Your task to perform on an android device: Search for vegetarian restaurants on Maps Image 0: 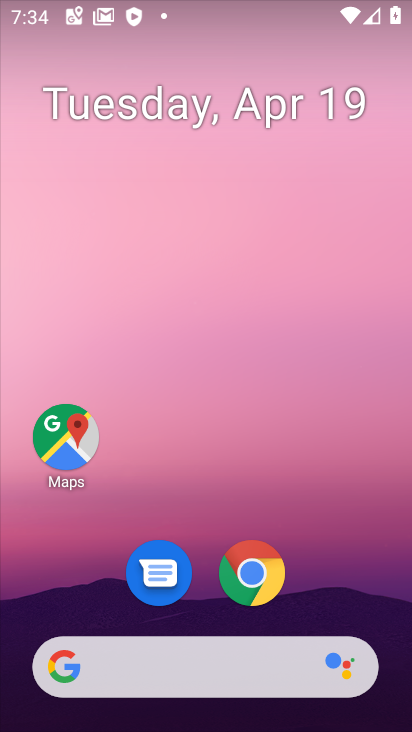
Step 0: click (78, 432)
Your task to perform on an android device: Search for vegetarian restaurants on Maps Image 1: 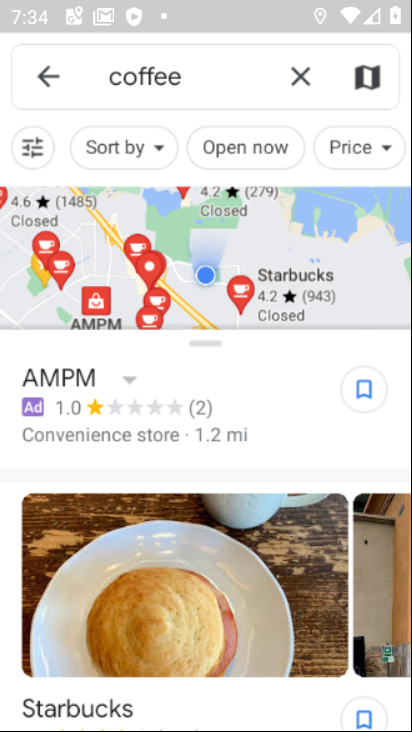
Step 1: click (294, 77)
Your task to perform on an android device: Search for vegetarian restaurants on Maps Image 2: 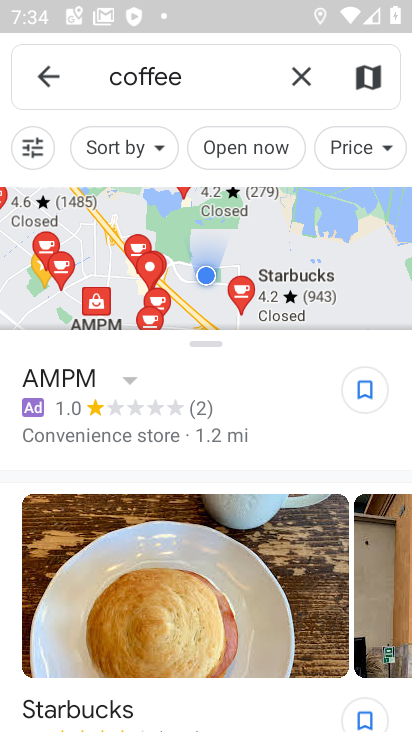
Step 2: click (300, 70)
Your task to perform on an android device: Search for vegetarian restaurants on Maps Image 3: 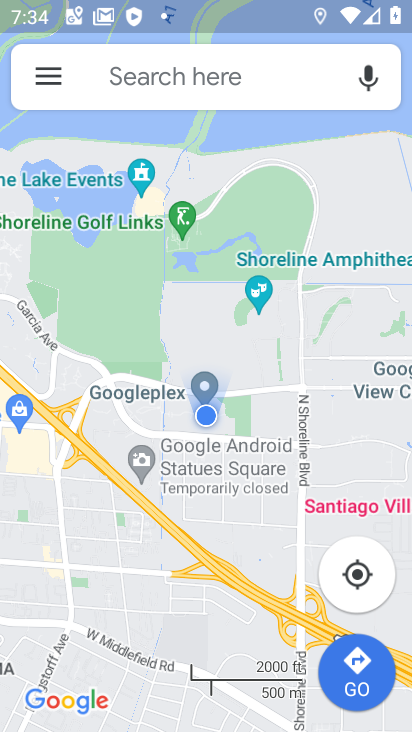
Step 3: click (111, 75)
Your task to perform on an android device: Search for vegetarian restaurants on Maps Image 4: 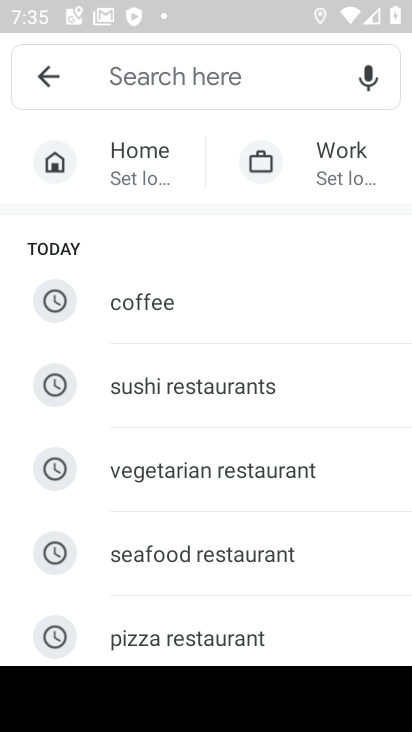
Step 4: type "vegetarian restaurants"
Your task to perform on an android device: Search for vegetarian restaurants on Maps Image 5: 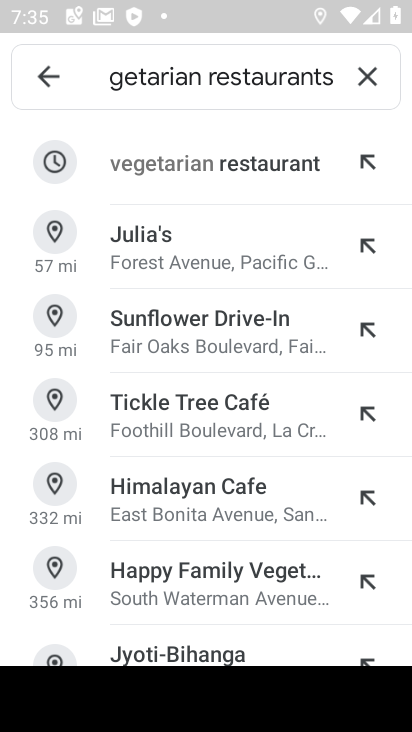
Step 5: click (222, 161)
Your task to perform on an android device: Search for vegetarian restaurants on Maps Image 6: 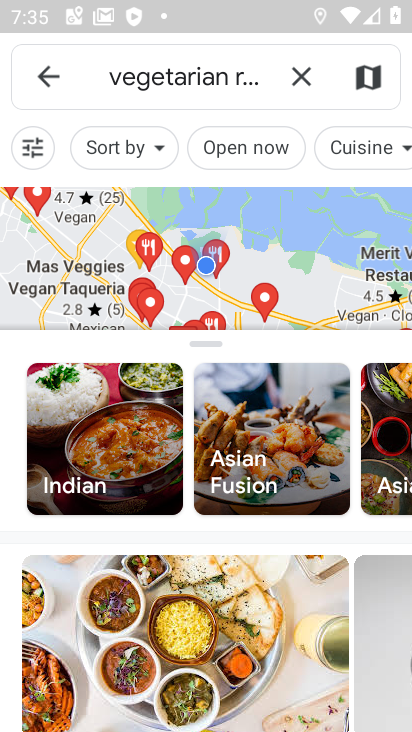
Step 6: task complete